Your task to perform on an android device: Open calendar and show me the fourth week of next month Image 0: 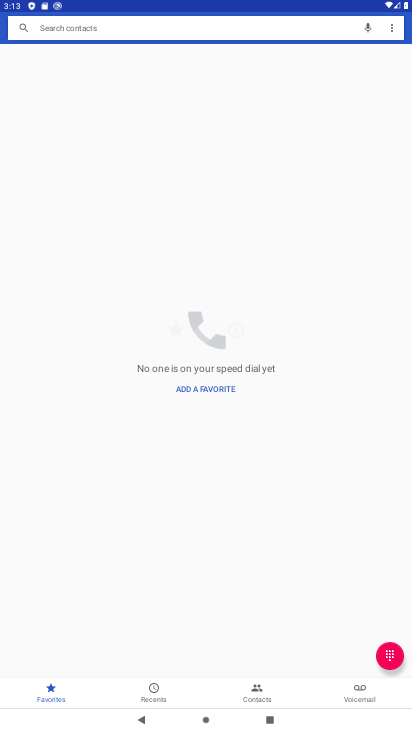
Step 0: press home button
Your task to perform on an android device: Open calendar and show me the fourth week of next month Image 1: 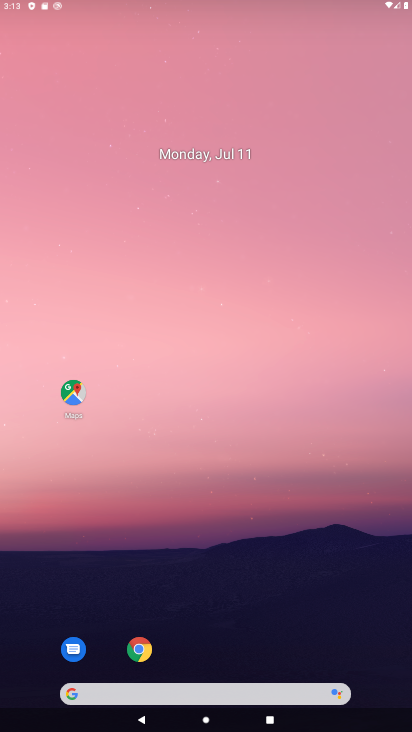
Step 1: drag from (176, 597) to (194, 24)
Your task to perform on an android device: Open calendar and show me the fourth week of next month Image 2: 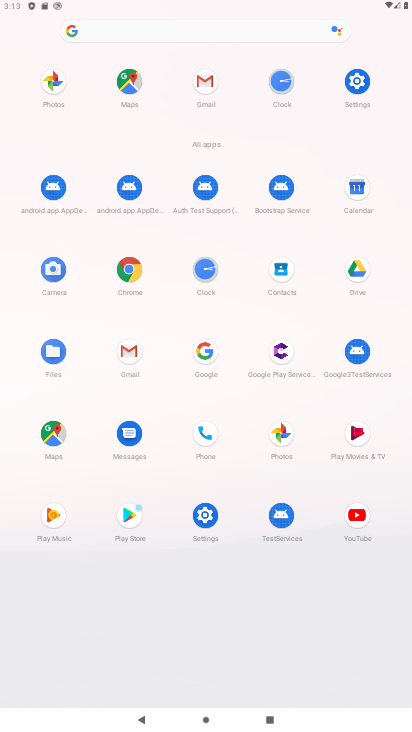
Step 2: click (357, 192)
Your task to perform on an android device: Open calendar and show me the fourth week of next month Image 3: 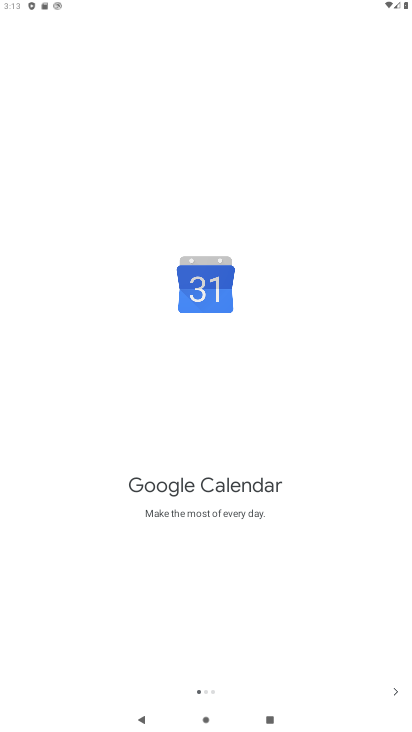
Step 3: click (397, 691)
Your task to perform on an android device: Open calendar and show me the fourth week of next month Image 4: 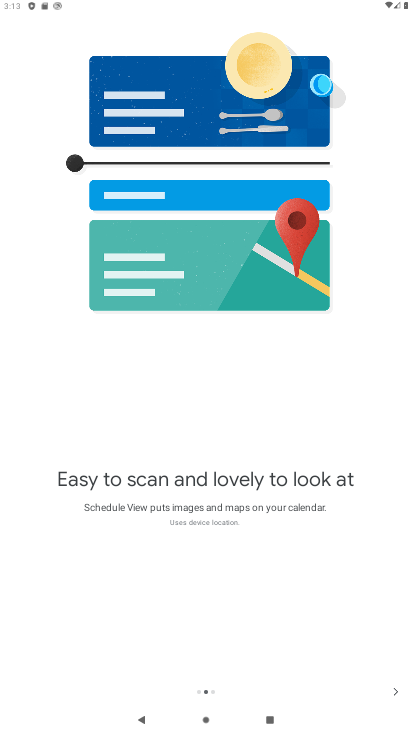
Step 4: click (397, 691)
Your task to perform on an android device: Open calendar and show me the fourth week of next month Image 5: 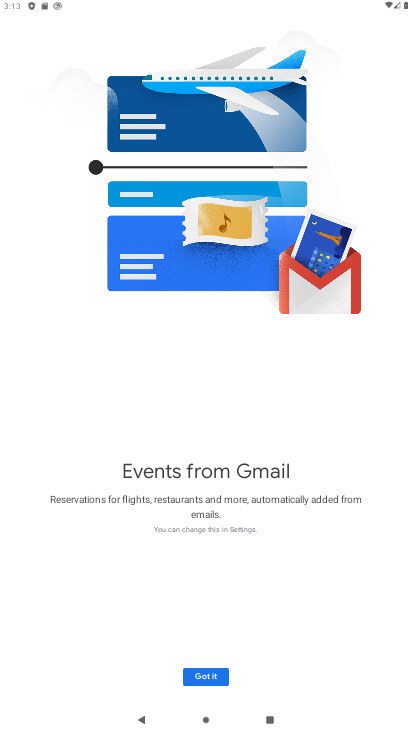
Step 5: click (223, 676)
Your task to perform on an android device: Open calendar and show me the fourth week of next month Image 6: 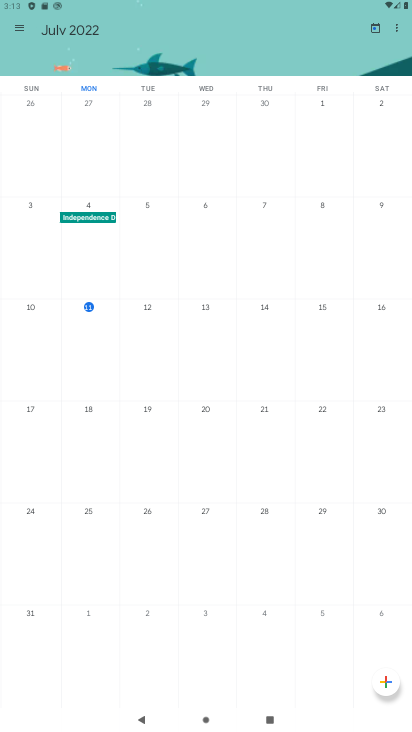
Step 6: drag from (360, 415) to (14, 444)
Your task to perform on an android device: Open calendar and show me the fourth week of next month Image 7: 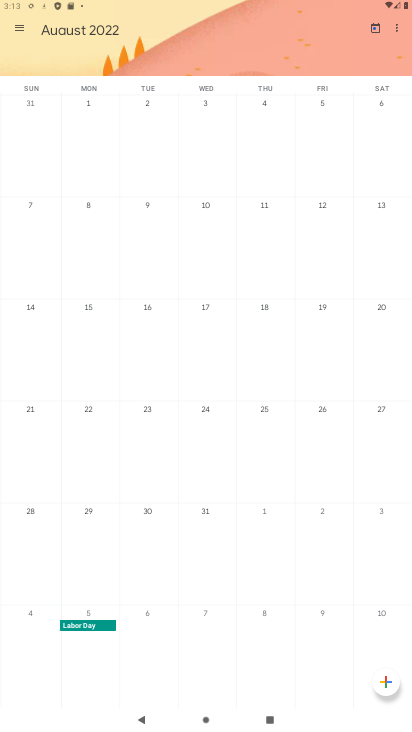
Step 7: click (208, 415)
Your task to perform on an android device: Open calendar and show me the fourth week of next month Image 8: 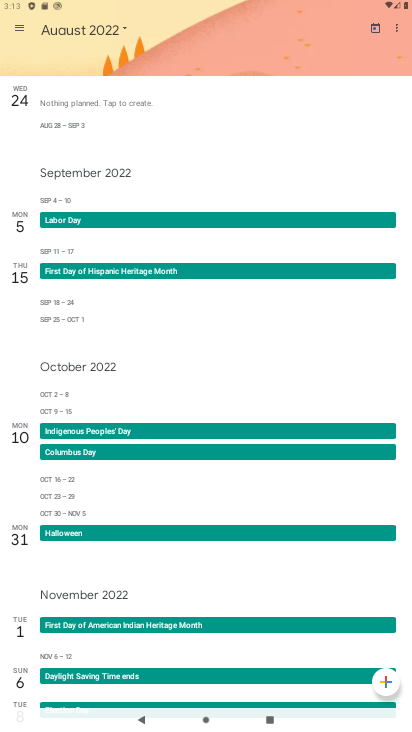
Step 8: task complete